Your task to perform on an android device: delete the emails in spam in the gmail app Image 0: 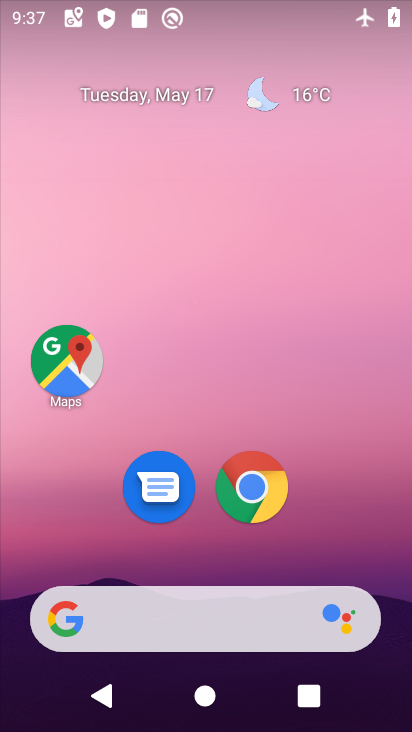
Step 0: drag from (202, 554) to (274, 11)
Your task to perform on an android device: delete the emails in spam in the gmail app Image 1: 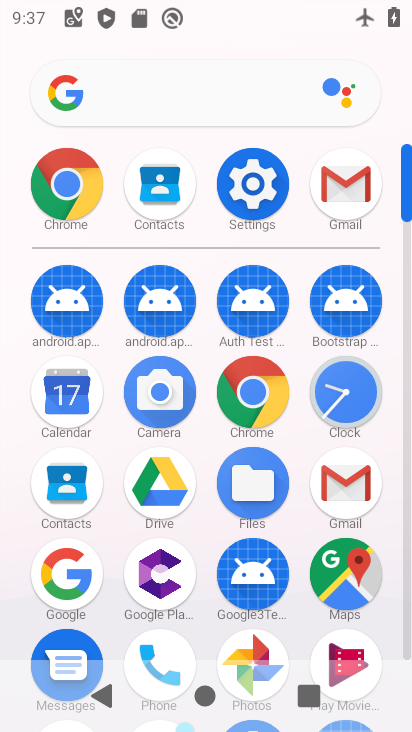
Step 1: click (346, 478)
Your task to perform on an android device: delete the emails in spam in the gmail app Image 2: 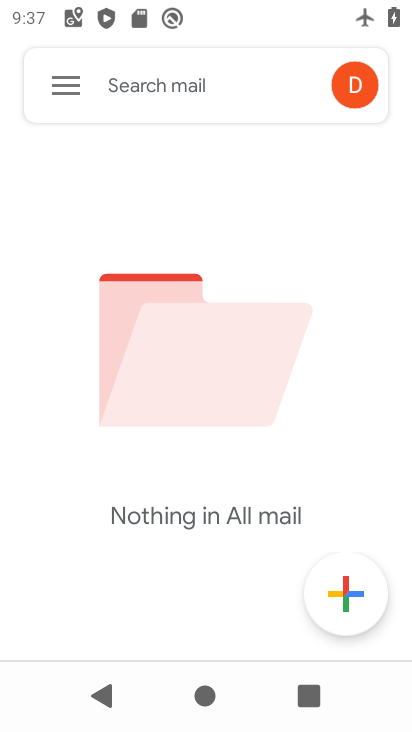
Step 2: click (61, 90)
Your task to perform on an android device: delete the emails in spam in the gmail app Image 3: 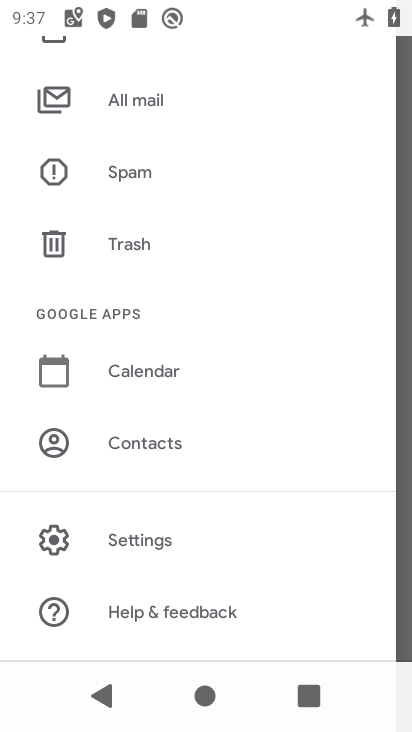
Step 3: click (145, 183)
Your task to perform on an android device: delete the emails in spam in the gmail app Image 4: 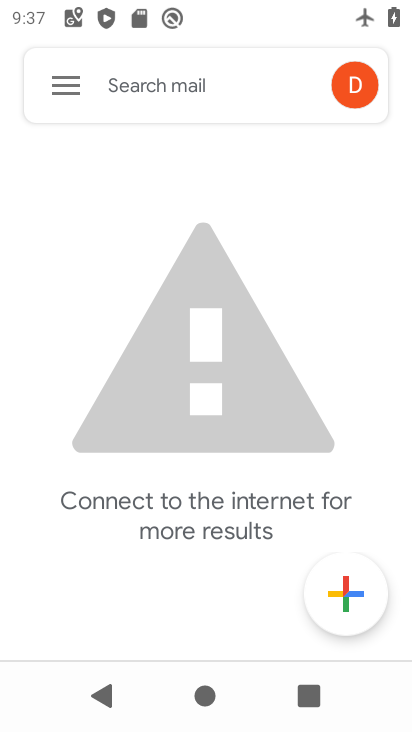
Step 4: task complete